Your task to perform on an android device: open app "Booking.com: Hotels and more" (install if not already installed) and enter user name: "misting@outlook.com" and password: "blandly" Image 0: 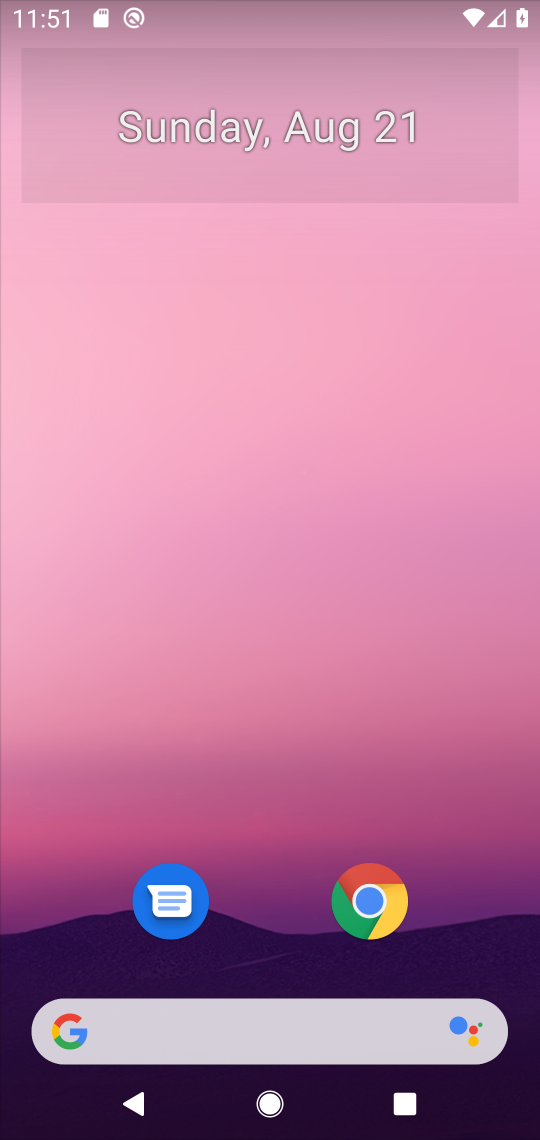
Step 0: drag from (285, 952) to (228, 81)
Your task to perform on an android device: open app "Booking.com: Hotels and more" (install if not already installed) and enter user name: "misting@outlook.com" and password: "blandly" Image 1: 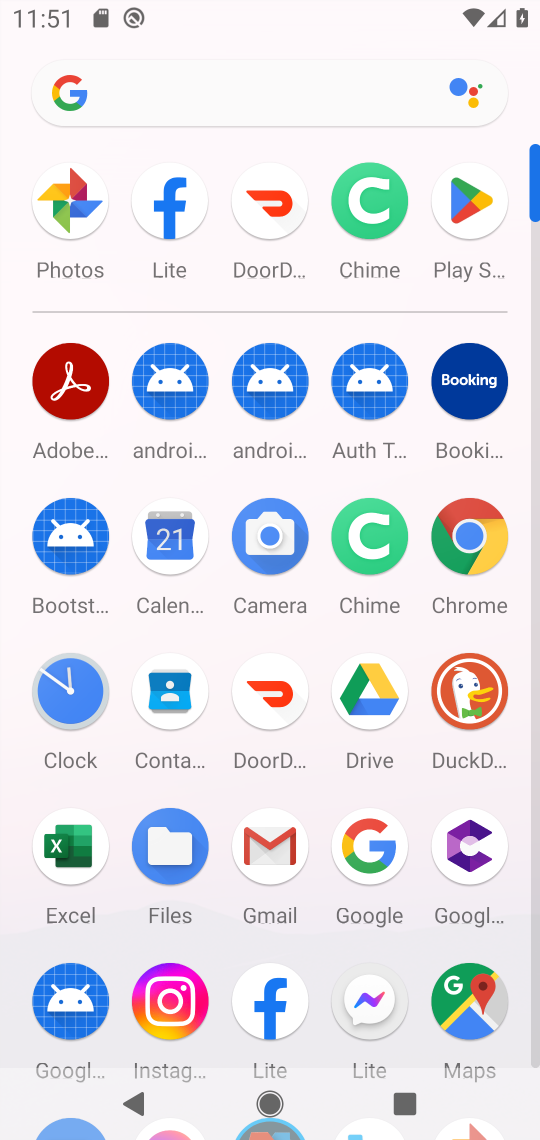
Step 1: click (456, 225)
Your task to perform on an android device: open app "Booking.com: Hotels and more" (install if not already installed) and enter user name: "misting@outlook.com" and password: "blandly" Image 2: 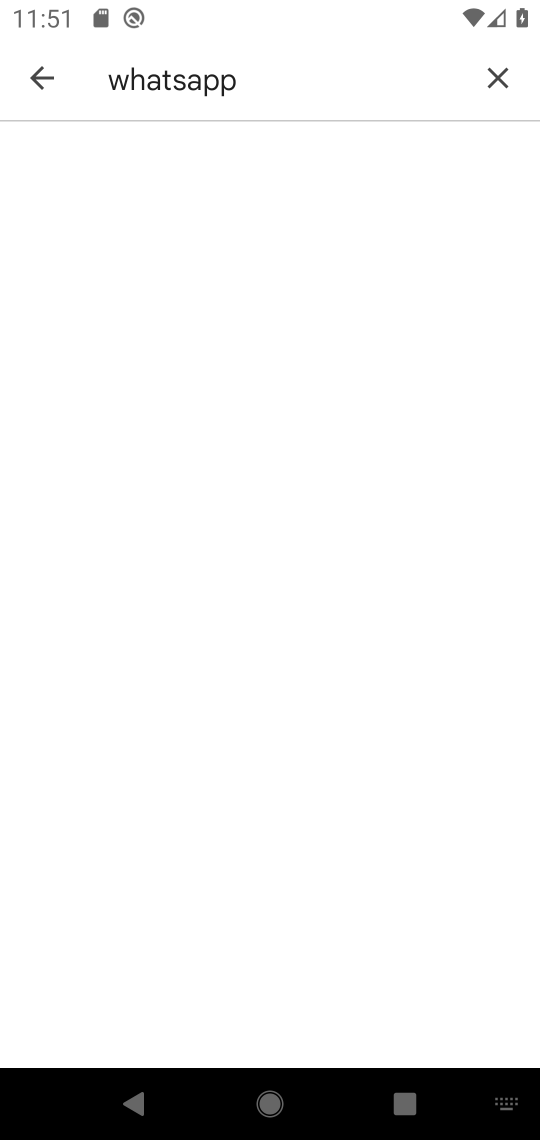
Step 2: click (490, 94)
Your task to perform on an android device: open app "Booking.com: Hotels and more" (install if not already installed) and enter user name: "misting@outlook.com" and password: "blandly" Image 3: 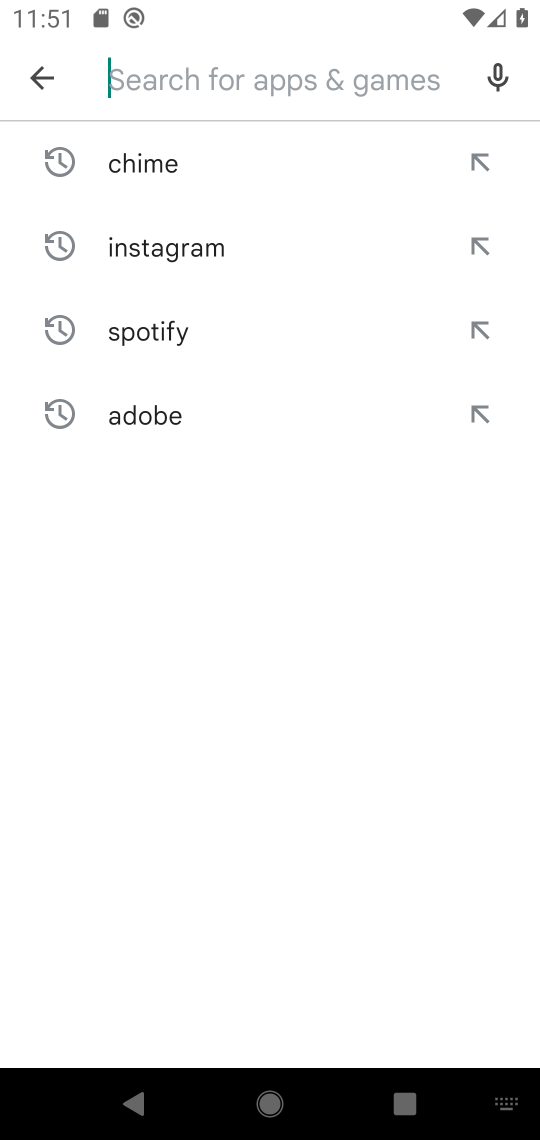
Step 3: type "booking"
Your task to perform on an android device: open app "Booking.com: Hotels and more" (install if not already installed) and enter user name: "misting@outlook.com" and password: "blandly" Image 4: 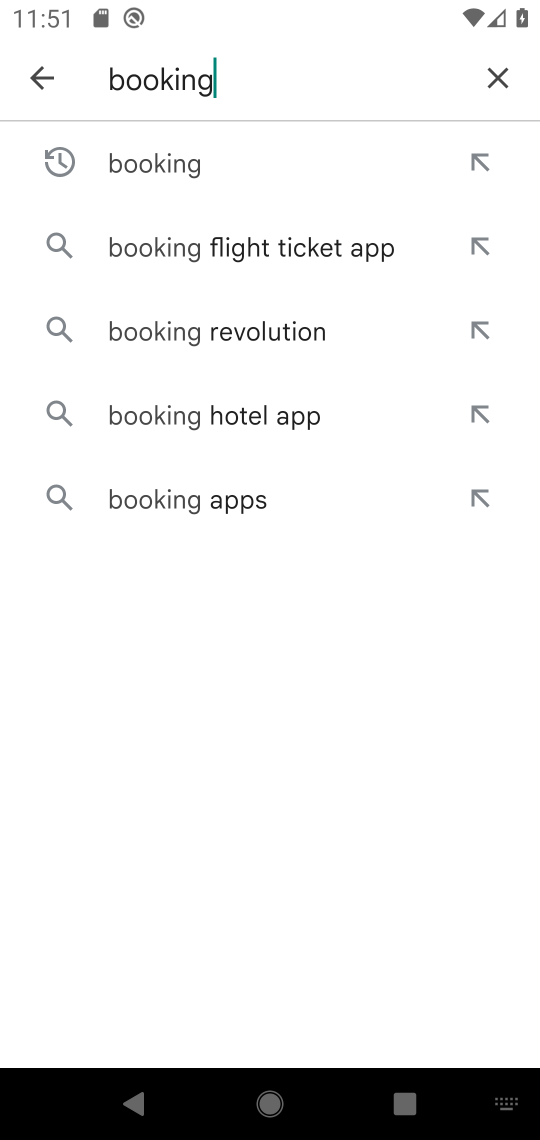
Step 4: click (255, 182)
Your task to perform on an android device: open app "Booking.com: Hotels and more" (install if not already installed) and enter user name: "misting@outlook.com" and password: "blandly" Image 5: 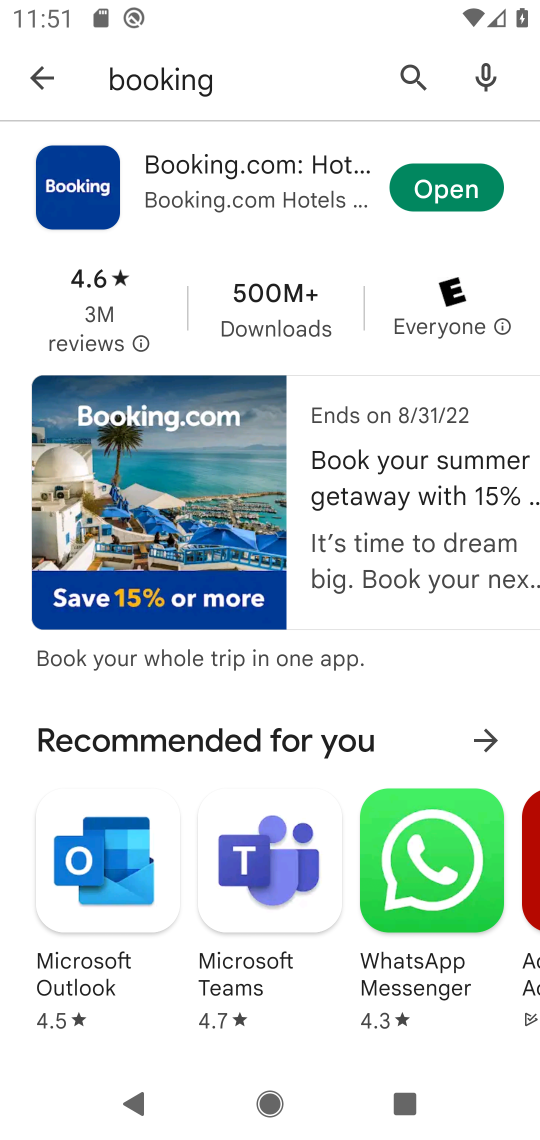
Step 5: click (393, 180)
Your task to perform on an android device: open app "Booking.com: Hotels and more" (install if not already installed) and enter user name: "misting@outlook.com" and password: "blandly" Image 6: 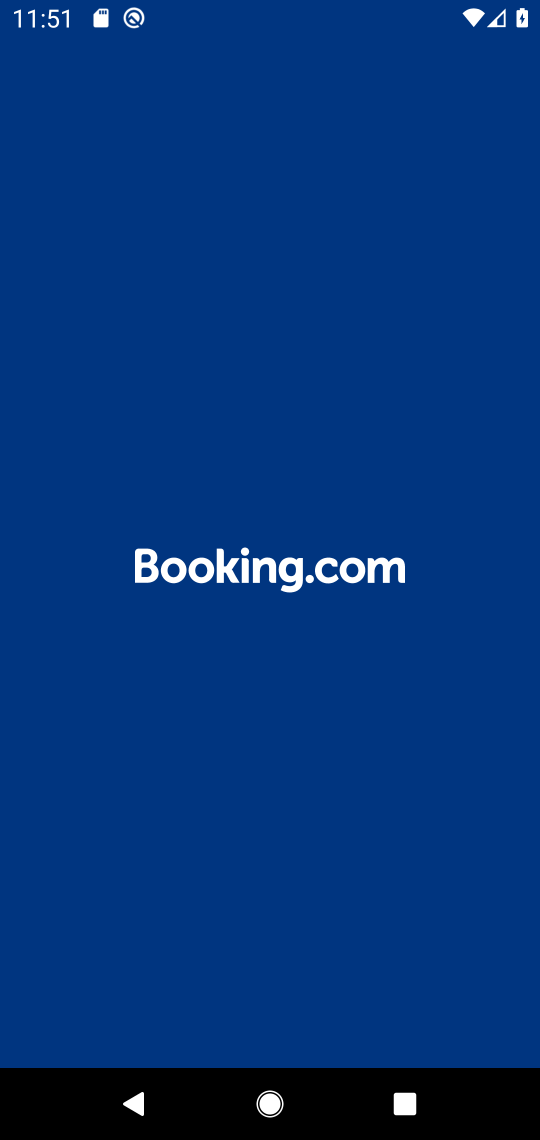
Step 6: task complete